Your task to perform on an android device: turn pop-ups off in chrome Image 0: 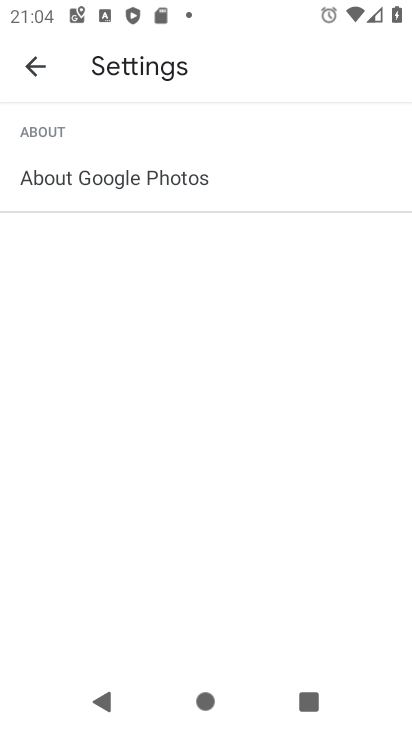
Step 0: press home button
Your task to perform on an android device: turn pop-ups off in chrome Image 1: 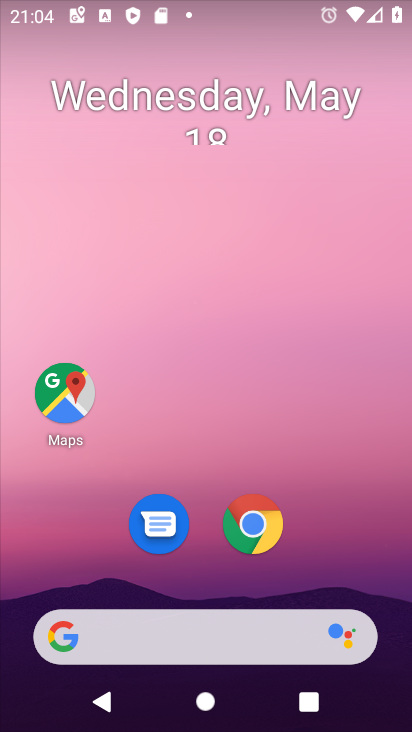
Step 1: click (274, 535)
Your task to perform on an android device: turn pop-ups off in chrome Image 2: 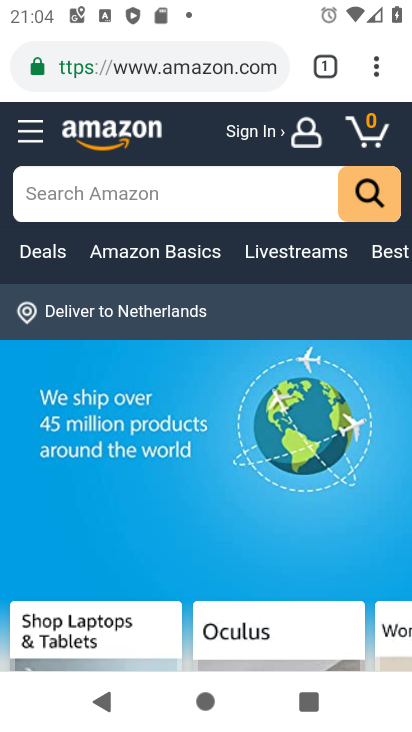
Step 2: click (375, 68)
Your task to perform on an android device: turn pop-ups off in chrome Image 3: 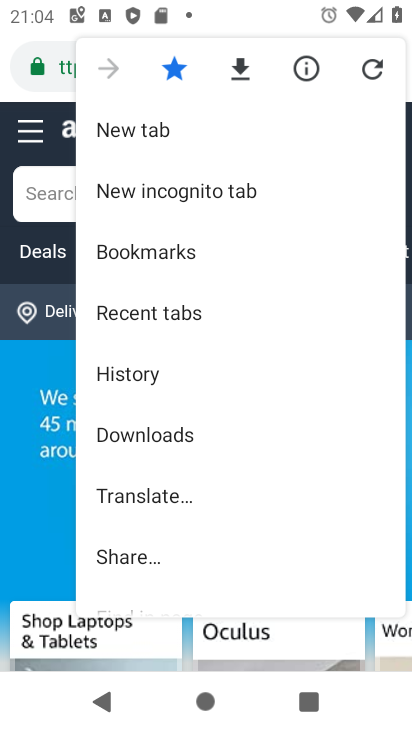
Step 3: drag from (214, 442) to (230, 142)
Your task to perform on an android device: turn pop-ups off in chrome Image 4: 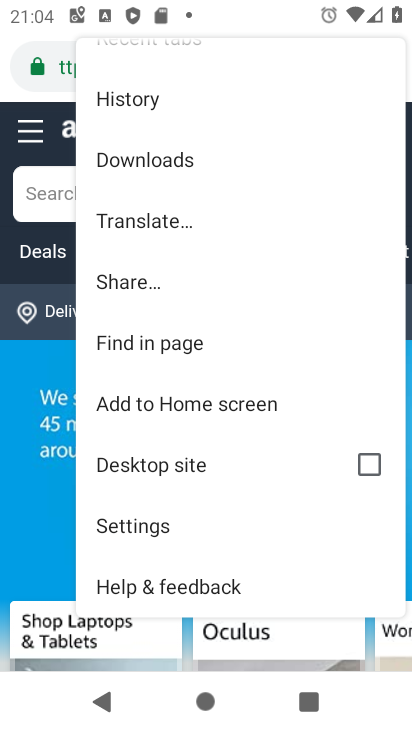
Step 4: click (169, 522)
Your task to perform on an android device: turn pop-ups off in chrome Image 5: 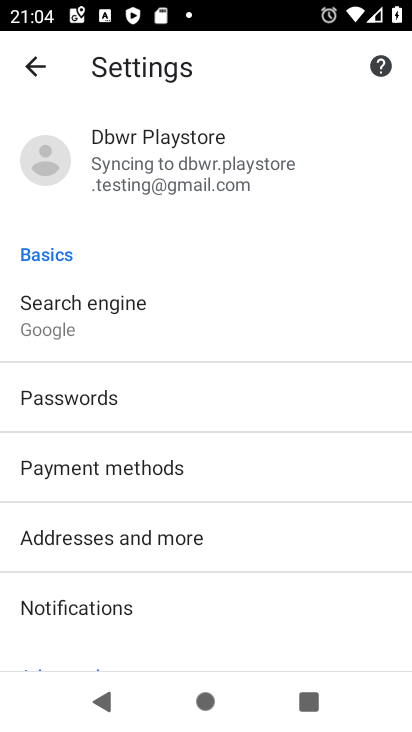
Step 5: drag from (271, 572) to (270, 243)
Your task to perform on an android device: turn pop-ups off in chrome Image 6: 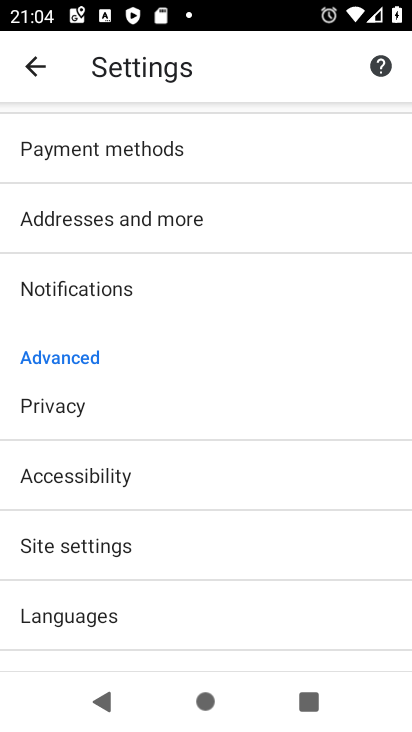
Step 6: click (135, 535)
Your task to perform on an android device: turn pop-ups off in chrome Image 7: 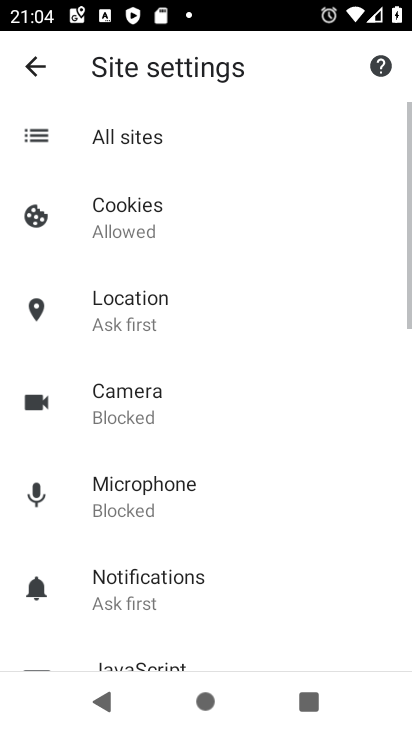
Step 7: drag from (258, 577) to (267, 271)
Your task to perform on an android device: turn pop-ups off in chrome Image 8: 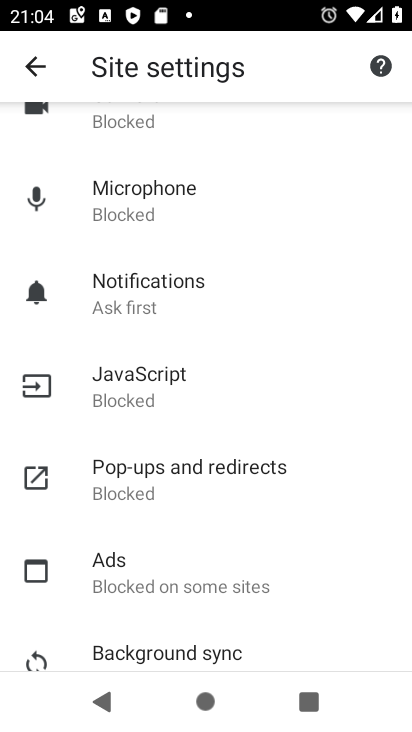
Step 8: click (207, 471)
Your task to perform on an android device: turn pop-ups off in chrome Image 9: 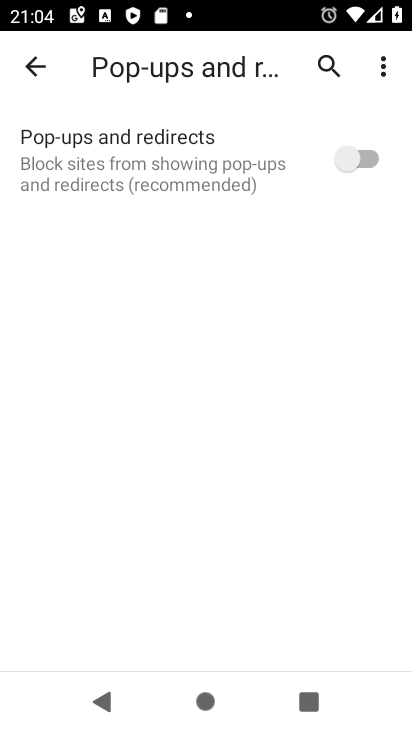
Step 9: task complete